Your task to perform on an android device: see creations saved in the google photos Image 0: 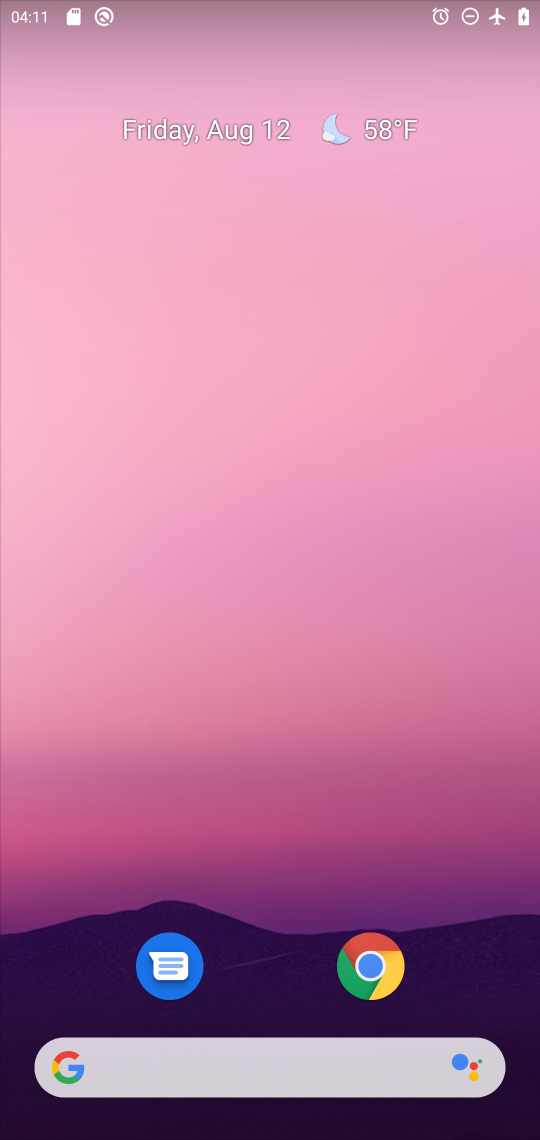
Step 0: drag from (397, 234) to (369, 137)
Your task to perform on an android device: see creations saved in the google photos Image 1: 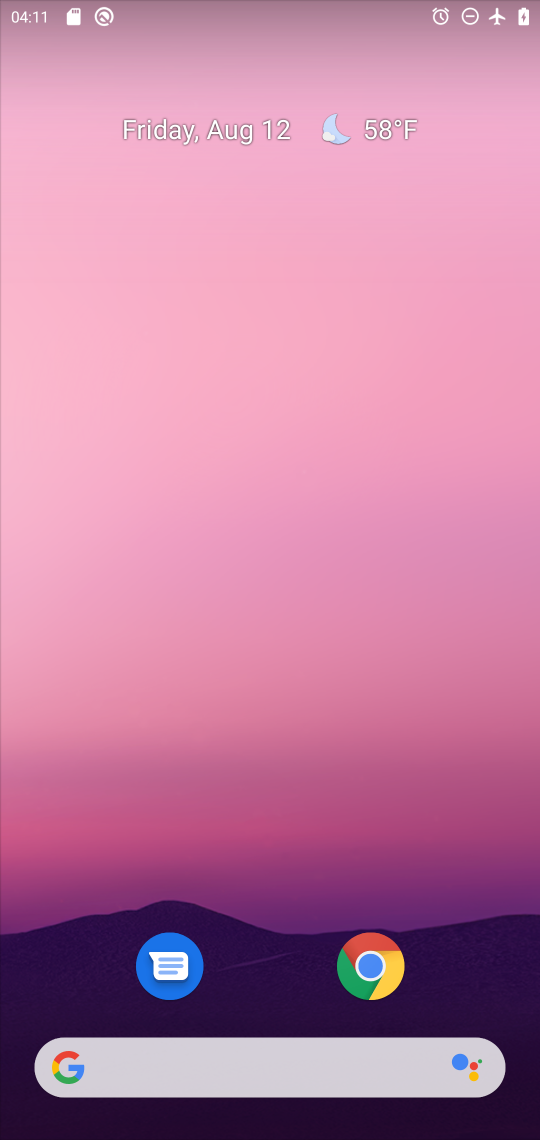
Step 1: drag from (272, 912) to (393, 171)
Your task to perform on an android device: see creations saved in the google photos Image 2: 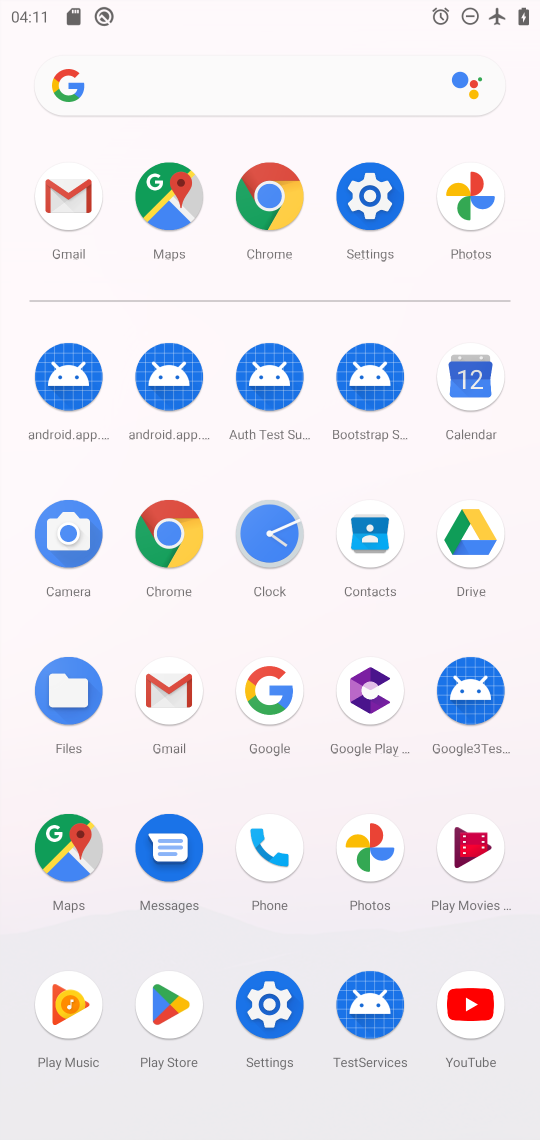
Step 2: click (364, 850)
Your task to perform on an android device: see creations saved in the google photos Image 3: 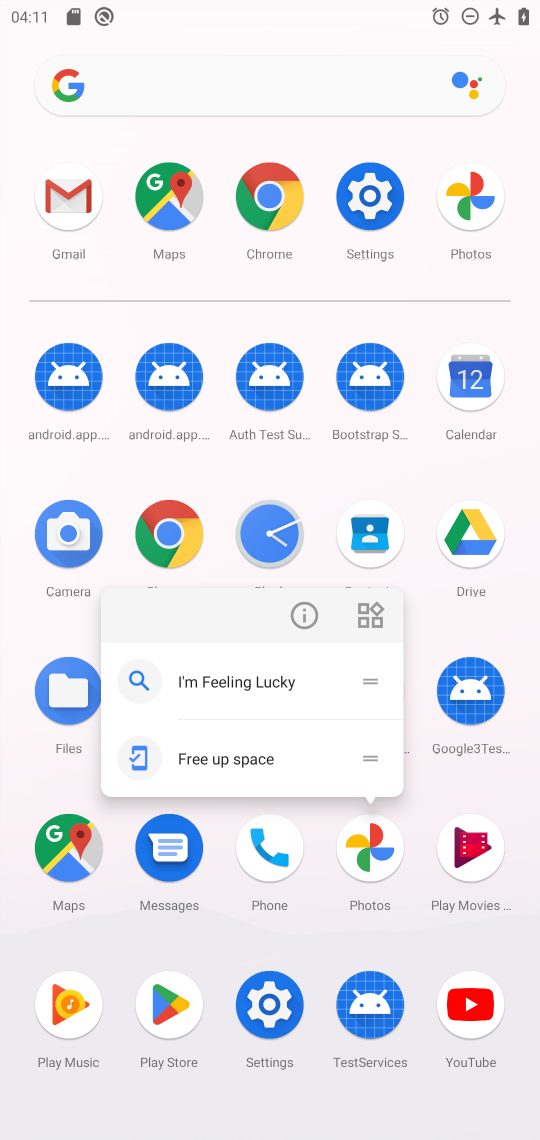
Step 3: click (362, 848)
Your task to perform on an android device: see creations saved in the google photos Image 4: 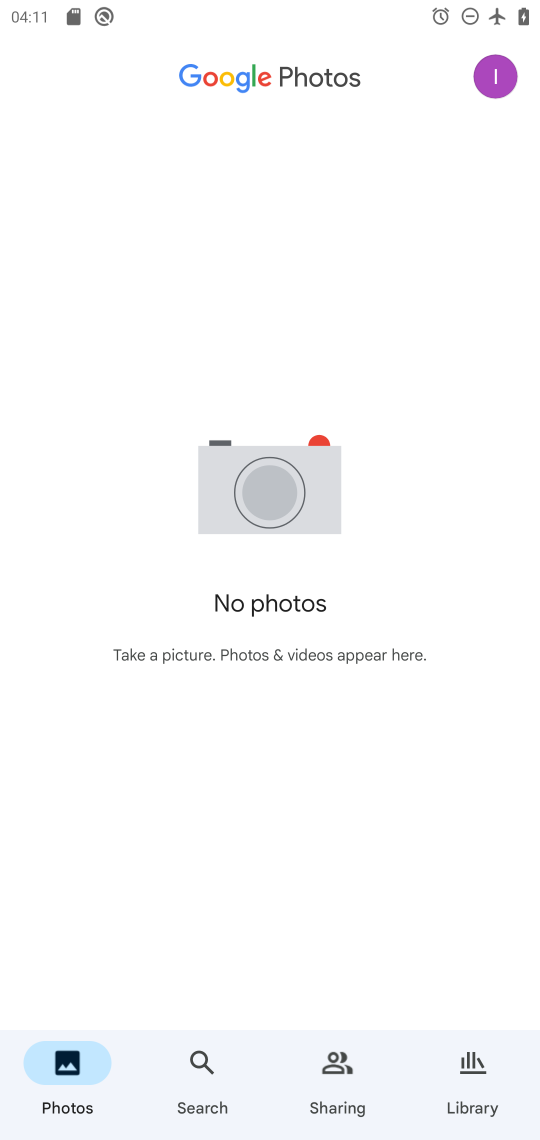
Step 4: click (482, 1067)
Your task to perform on an android device: see creations saved in the google photos Image 5: 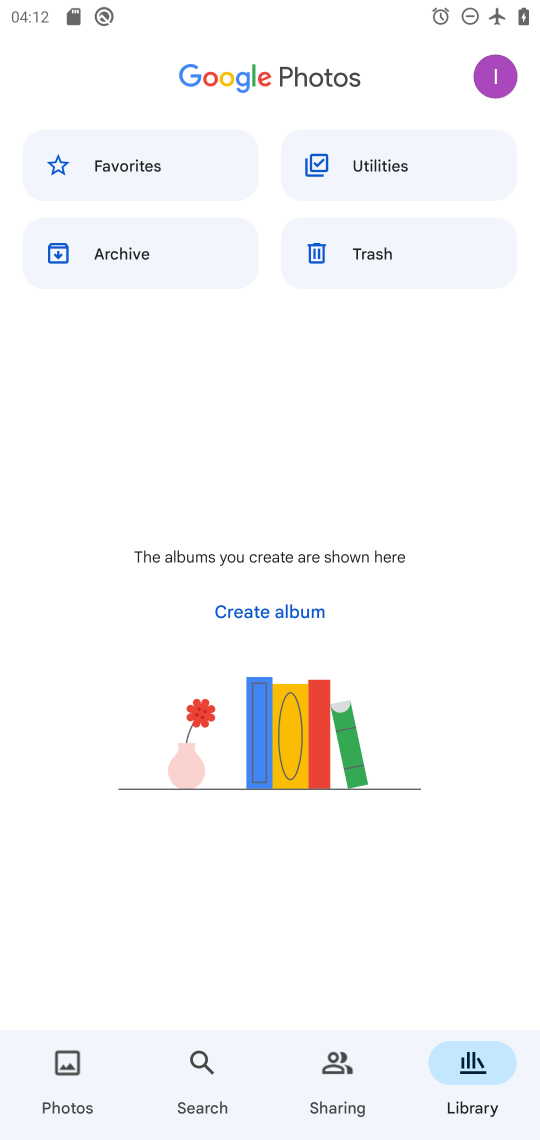
Step 5: task complete